Your task to perform on an android device: snooze an email in the gmail app Image 0: 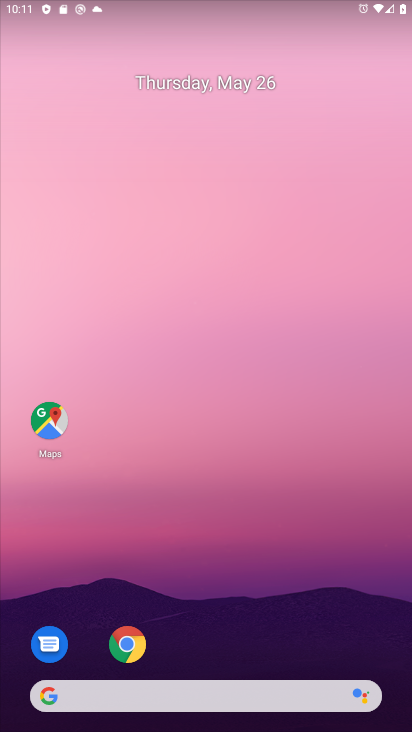
Step 0: drag from (205, 636) to (175, 166)
Your task to perform on an android device: snooze an email in the gmail app Image 1: 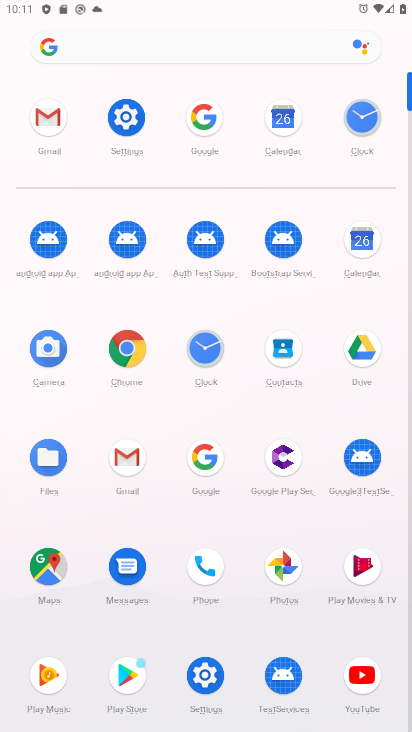
Step 1: click (60, 113)
Your task to perform on an android device: snooze an email in the gmail app Image 2: 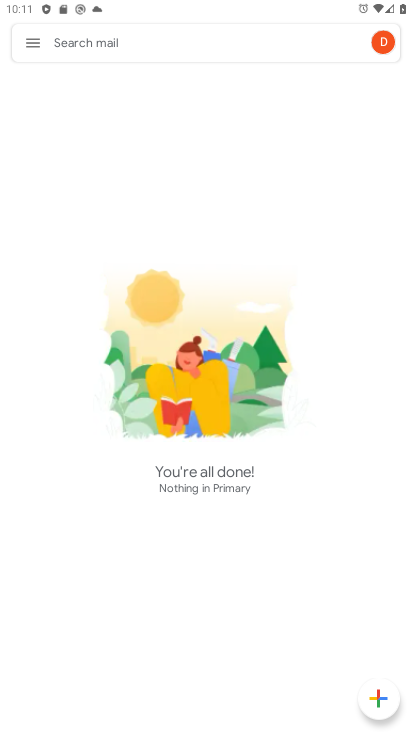
Step 2: click (31, 44)
Your task to perform on an android device: snooze an email in the gmail app Image 3: 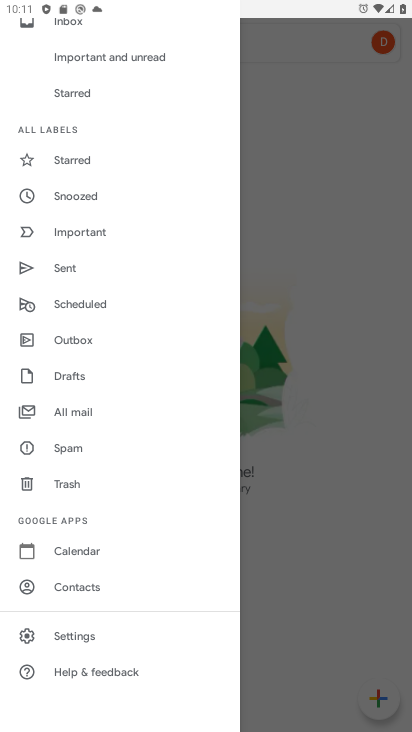
Step 3: click (99, 412)
Your task to perform on an android device: snooze an email in the gmail app Image 4: 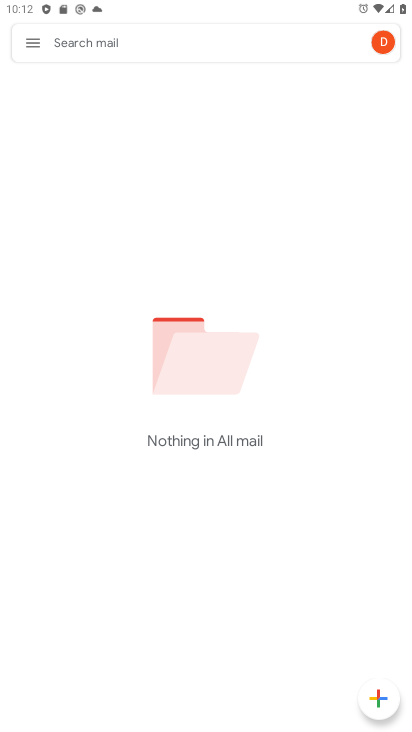
Step 4: task complete